Your task to perform on an android device: Open settings on Google Maps Image 0: 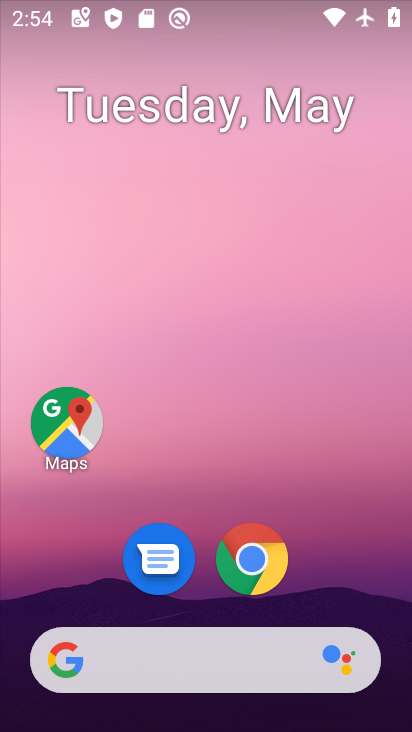
Step 0: drag from (133, 652) to (308, 158)
Your task to perform on an android device: Open settings on Google Maps Image 1: 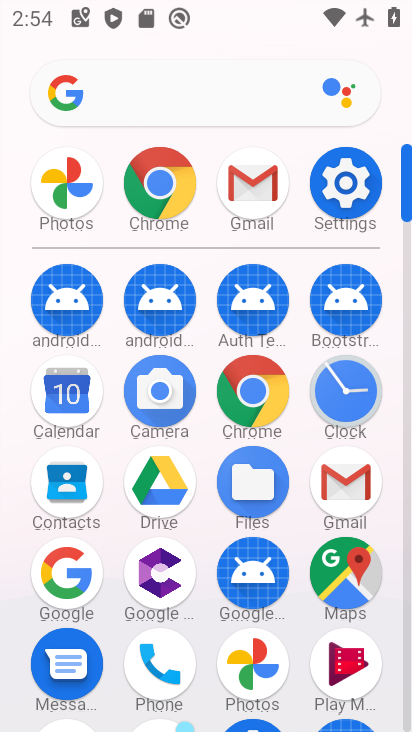
Step 1: click (344, 594)
Your task to perform on an android device: Open settings on Google Maps Image 2: 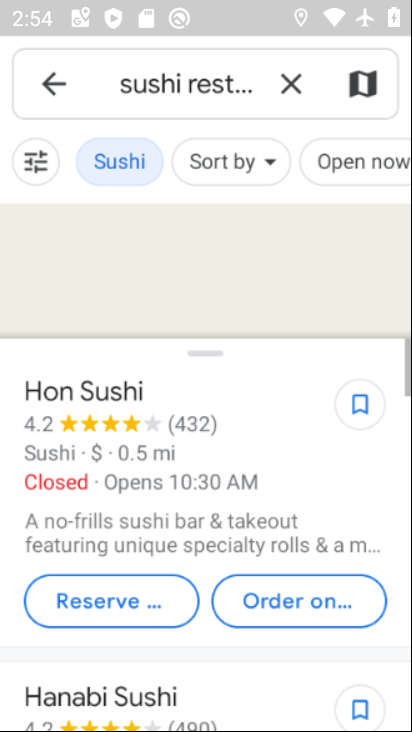
Step 2: click (49, 84)
Your task to perform on an android device: Open settings on Google Maps Image 3: 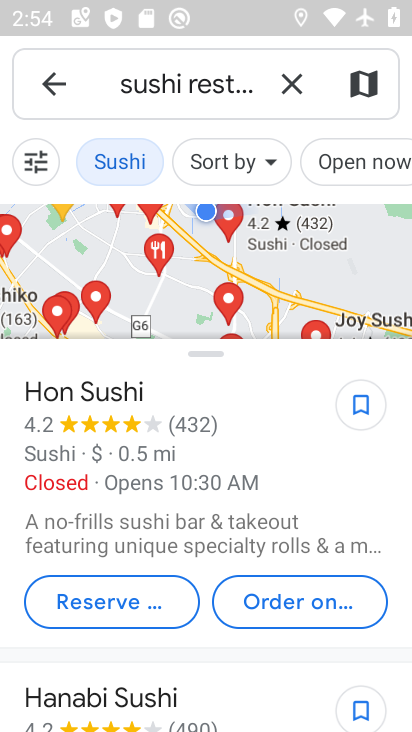
Step 3: click (53, 82)
Your task to perform on an android device: Open settings on Google Maps Image 4: 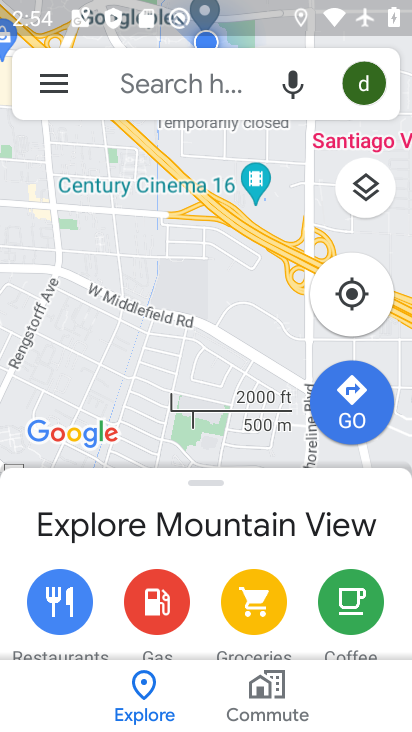
Step 4: click (55, 83)
Your task to perform on an android device: Open settings on Google Maps Image 5: 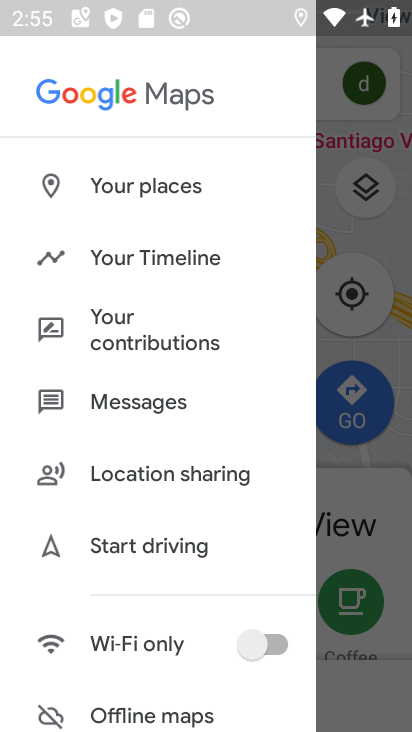
Step 5: drag from (137, 623) to (232, 242)
Your task to perform on an android device: Open settings on Google Maps Image 6: 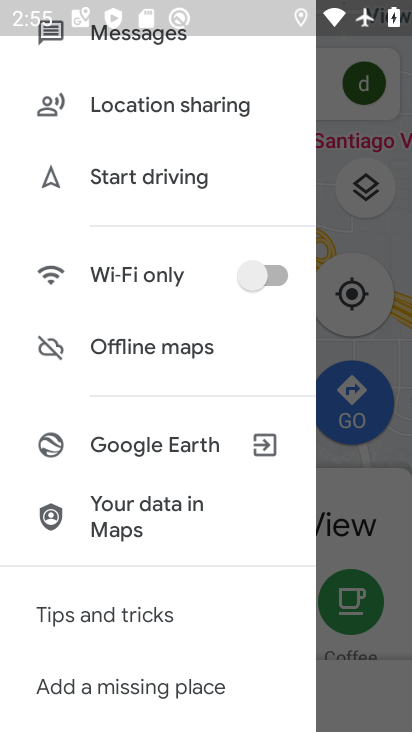
Step 6: drag from (122, 561) to (248, 122)
Your task to perform on an android device: Open settings on Google Maps Image 7: 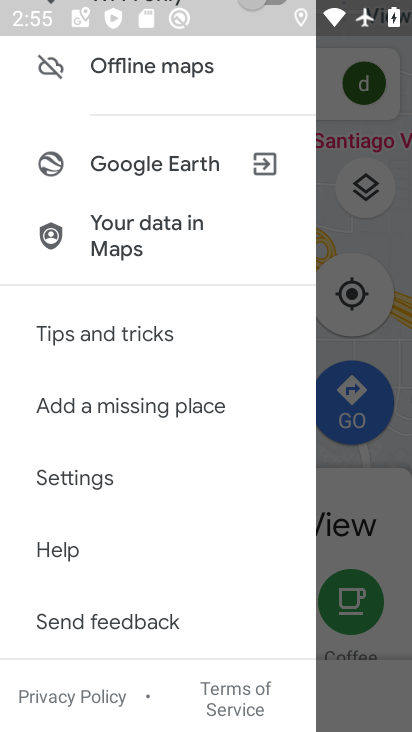
Step 7: click (91, 477)
Your task to perform on an android device: Open settings on Google Maps Image 8: 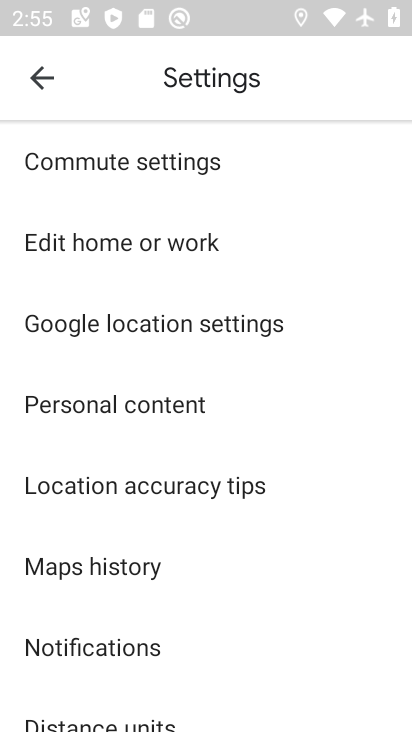
Step 8: task complete